Your task to perform on an android device: change timer sound Image 0: 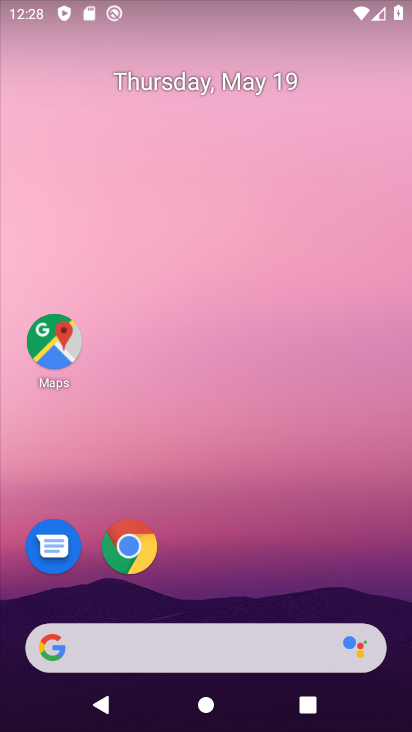
Step 0: drag from (246, 551) to (259, 65)
Your task to perform on an android device: change timer sound Image 1: 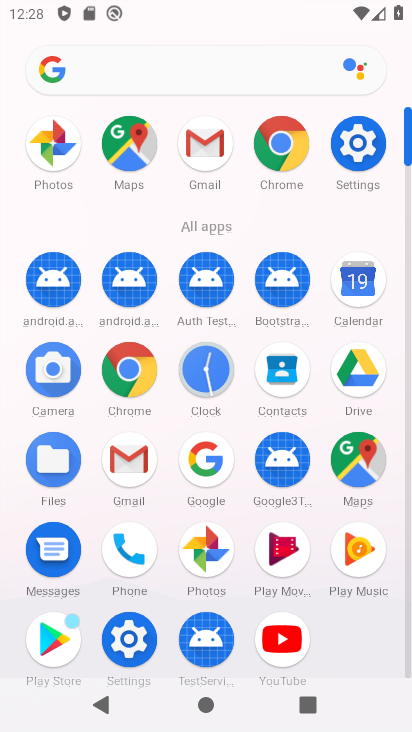
Step 1: click (206, 368)
Your task to perform on an android device: change timer sound Image 2: 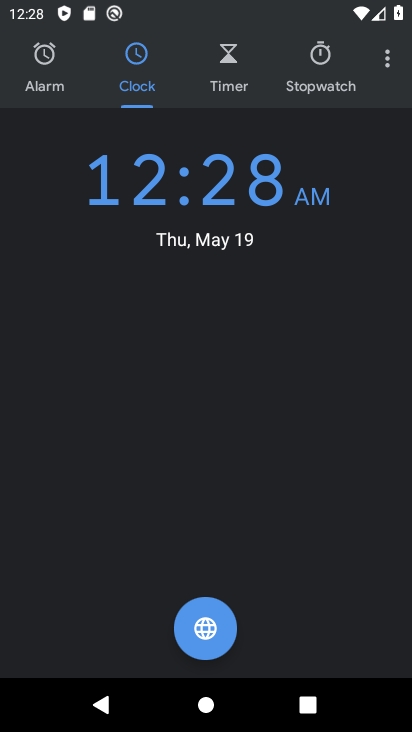
Step 2: click (389, 61)
Your task to perform on an android device: change timer sound Image 3: 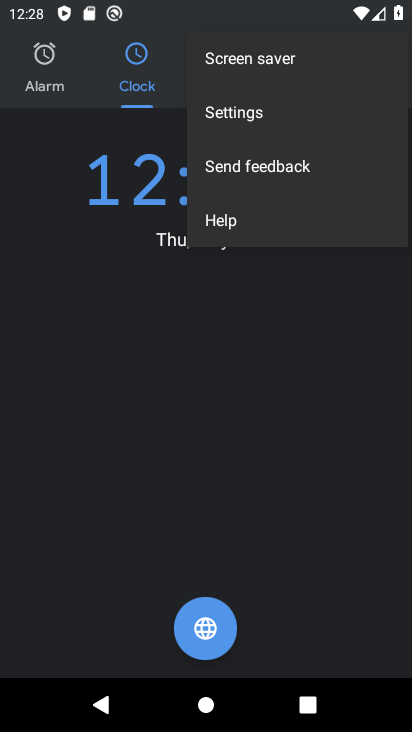
Step 3: click (255, 109)
Your task to perform on an android device: change timer sound Image 4: 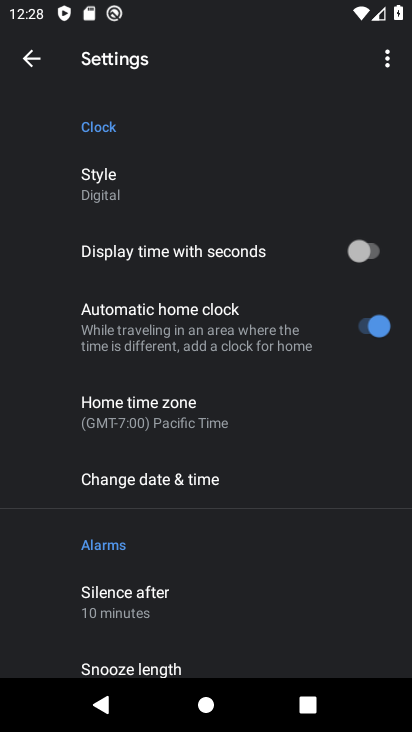
Step 4: drag from (217, 554) to (219, 460)
Your task to perform on an android device: change timer sound Image 5: 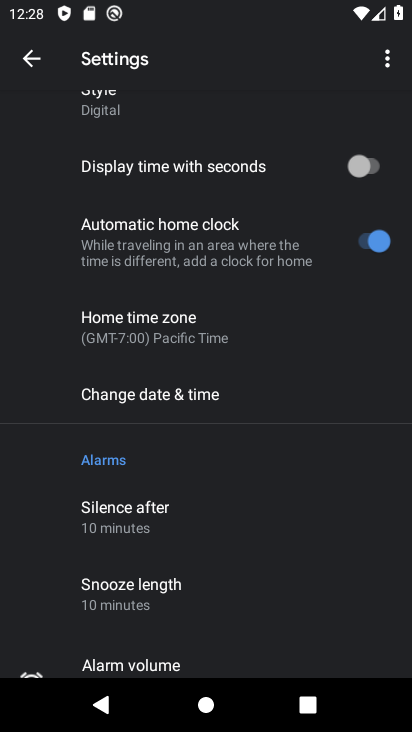
Step 5: drag from (198, 563) to (212, 470)
Your task to perform on an android device: change timer sound Image 6: 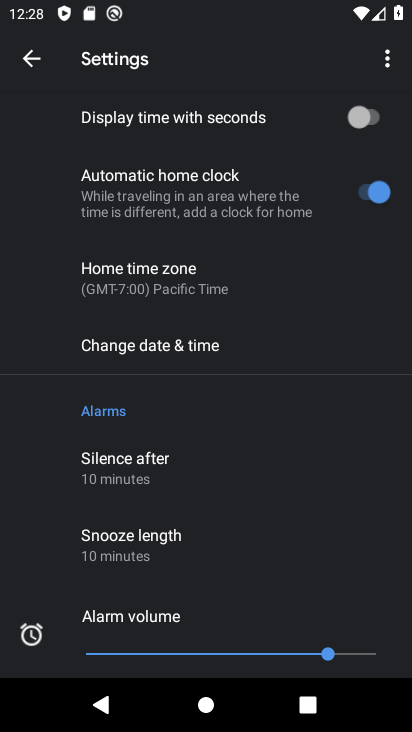
Step 6: drag from (211, 590) to (258, 484)
Your task to perform on an android device: change timer sound Image 7: 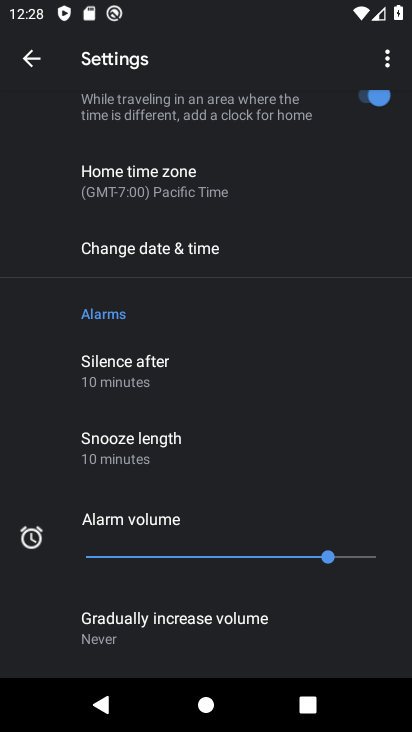
Step 7: drag from (178, 586) to (242, 490)
Your task to perform on an android device: change timer sound Image 8: 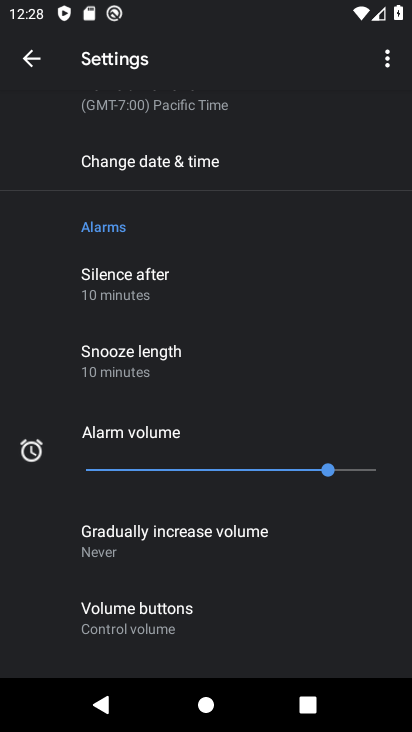
Step 8: drag from (183, 559) to (246, 479)
Your task to perform on an android device: change timer sound Image 9: 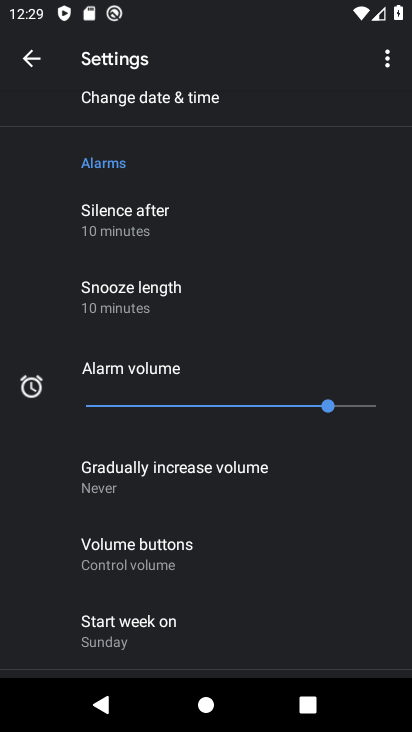
Step 9: drag from (183, 564) to (226, 468)
Your task to perform on an android device: change timer sound Image 10: 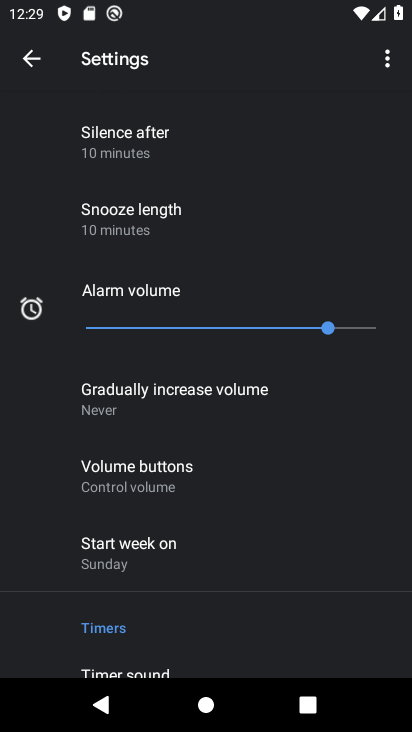
Step 10: drag from (195, 546) to (253, 467)
Your task to perform on an android device: change timer sound Image 11: 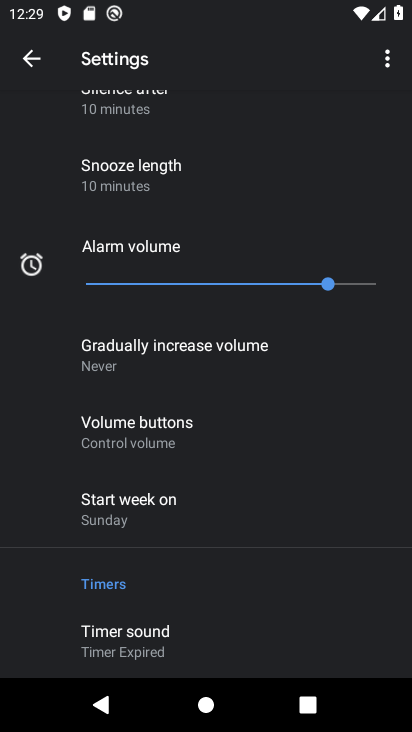
Step 11: drag from (201, 619) to (268, 510)
Your task to perform on an android device: change timer sound Image 12: 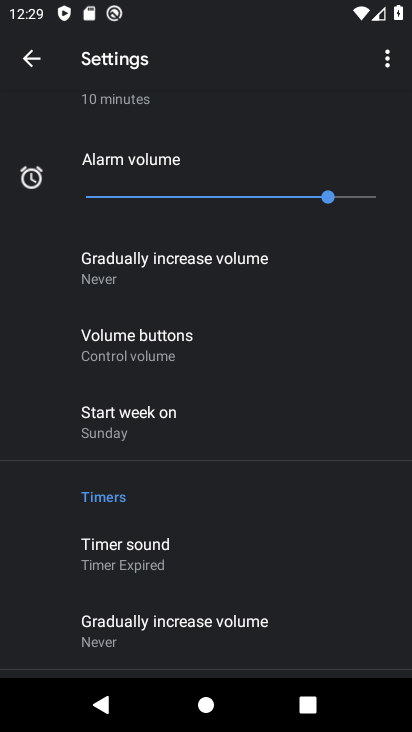
Step 12: click (139, 552)
Your task to perform on an android device: change timer sound Image 13: 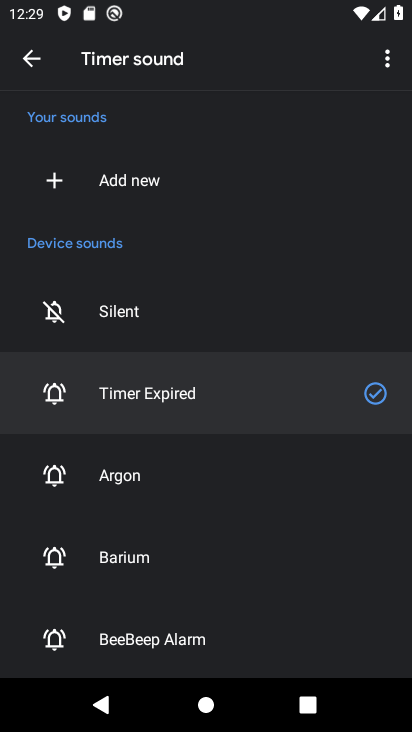
Step 13: drag from (172, 558) to (199, 445)
Your task to perform on an android device: change timer sound Image 14: 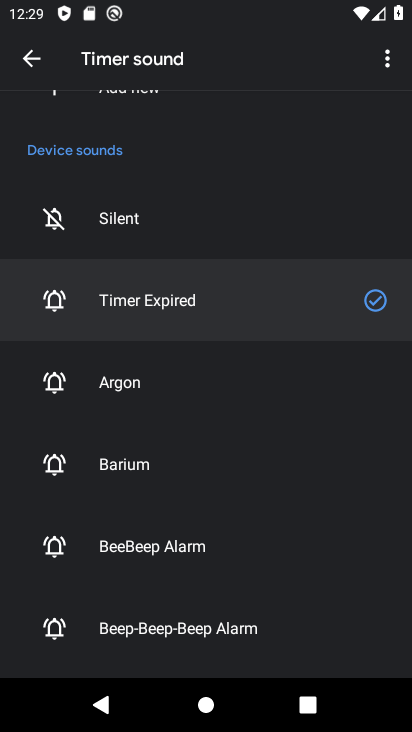
Step 14: click (194, 542)
Your task to perform on an android device: change timer sound Image 15: 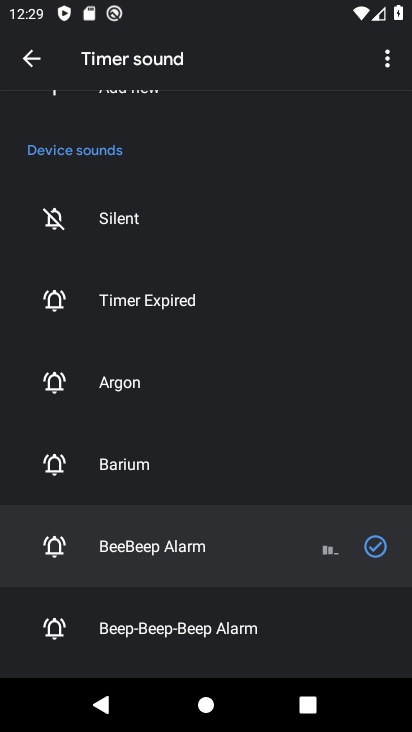
Step 15: task complete